Your task to perform on an android device: Go to display settings Image 0: 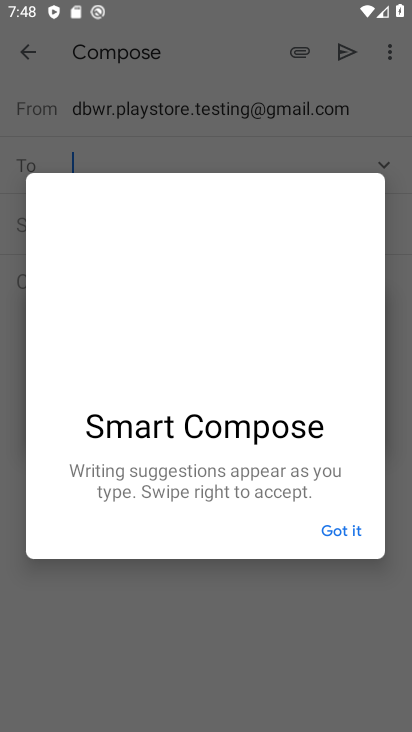
Step 0: press home button
Your task to perform on an android device: Go to display settings Image 1: 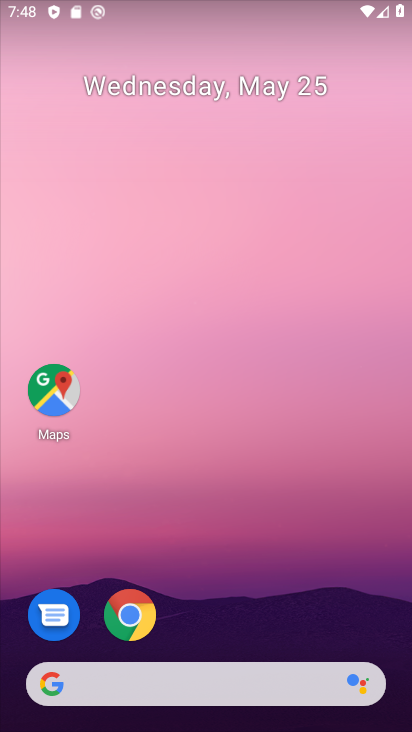
Step 1: click (173, 681)
Your task to perform on an android device: Go to display settings Image 2: 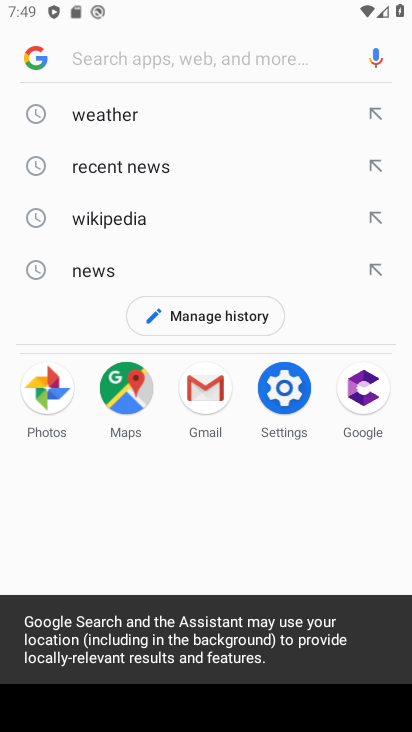
Step 2: click (285, 389)
Your task to perform on an android device: Go to display settings Image 3: 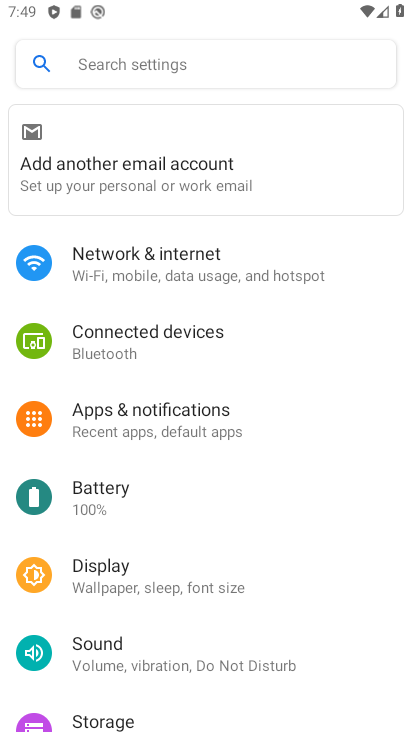
Step 3: click (173, 576)
Your task to perform on an android device: Go to display settings Image 4: 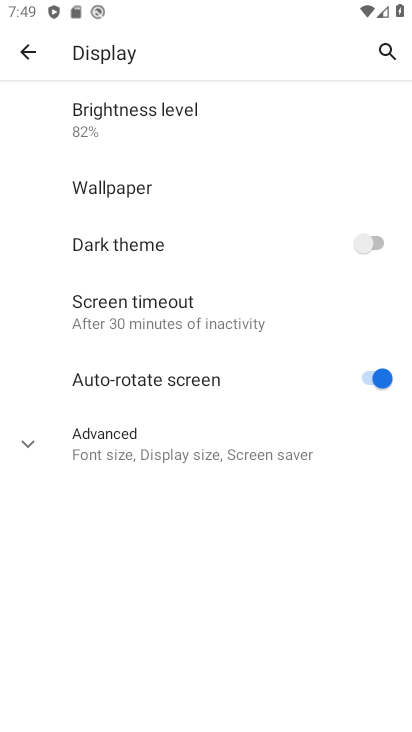
Step 4: task complete